Your task to perform on an android device: Turn off the flashlight Image 0: 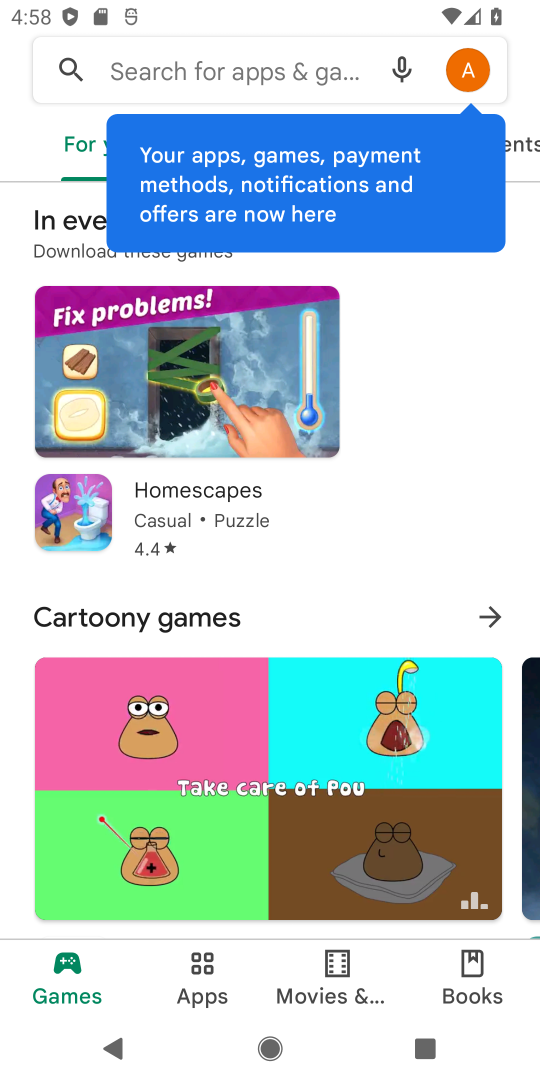
Step 0: press home button
Your task to perform on an android device: Turn off the flashlight Image 1: 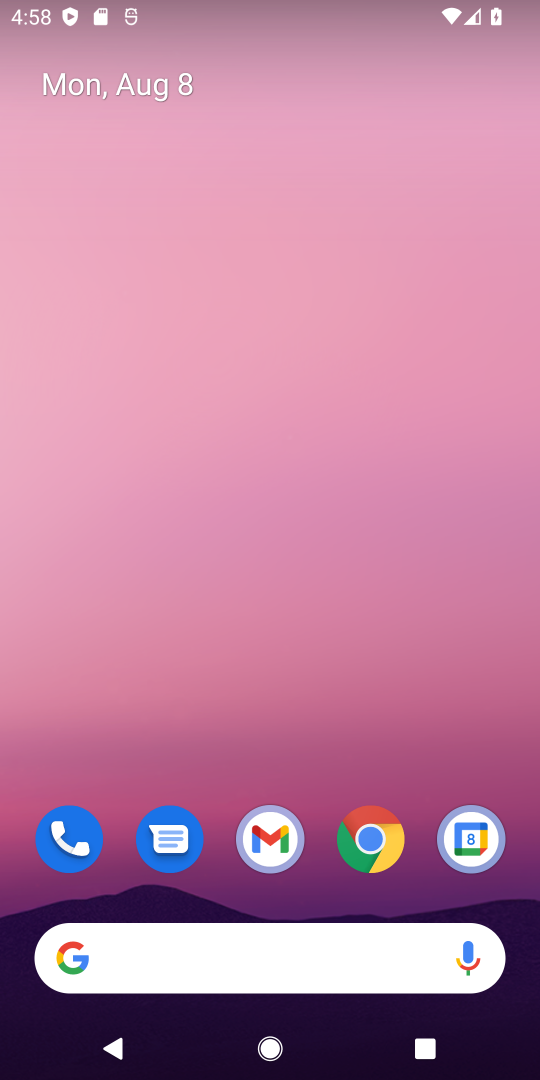
Step 1: drag from (301, 905) to (320, 17)
Your task to perform on an android device: Turn off the flashlight Image 2: 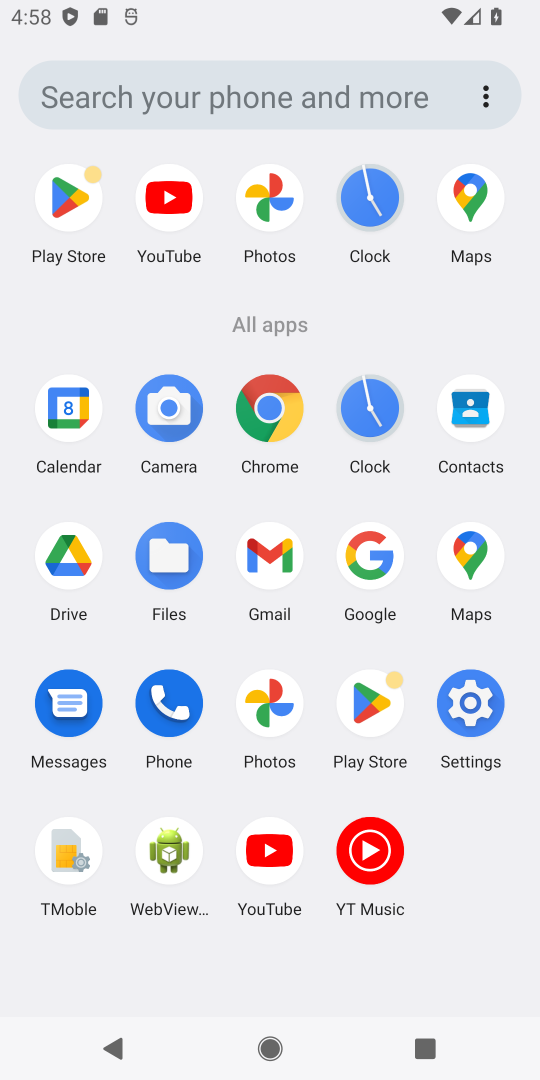
Step 2: click (471, 707)
Your task to perform on an android device: Turn off the flashlight Image 3: 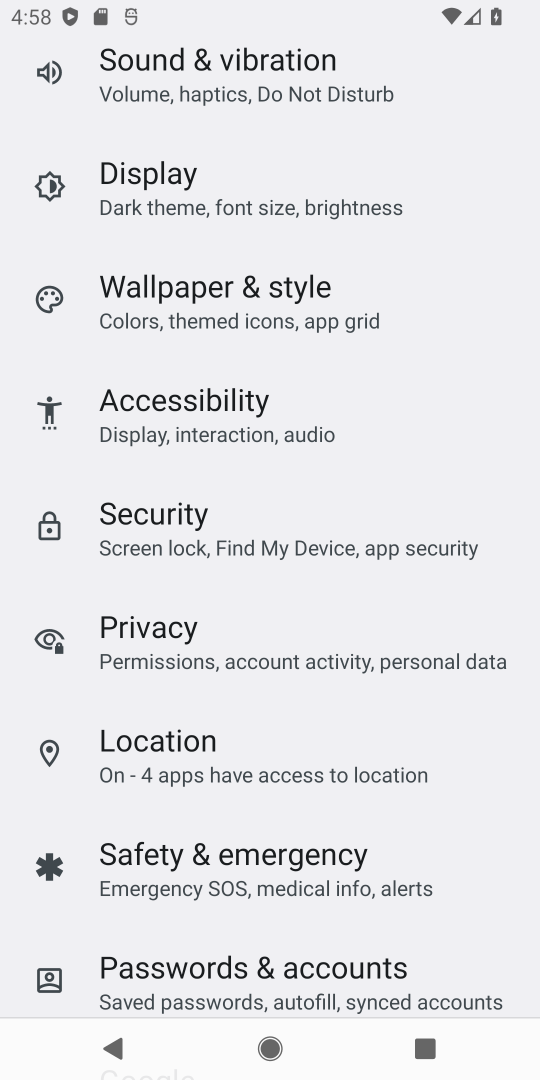
Step 3: drag from (304, 769) to (319, 1016)
Your task to perform on an android device: Turn off the flashlight Image 4: 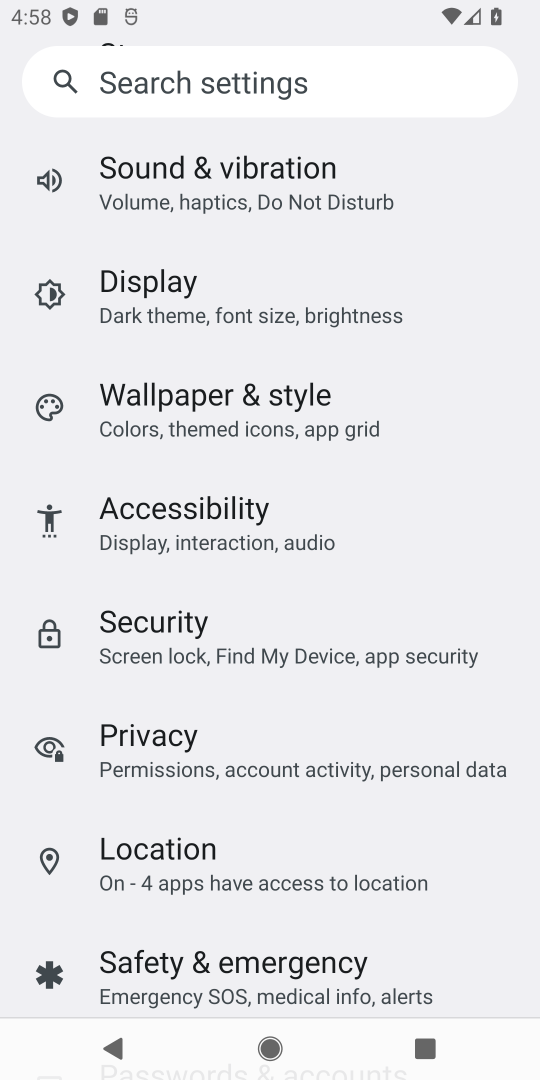
Step 4: click (253, 70)
Your task to perform on an android device: Turn off the flashlight Image 5: 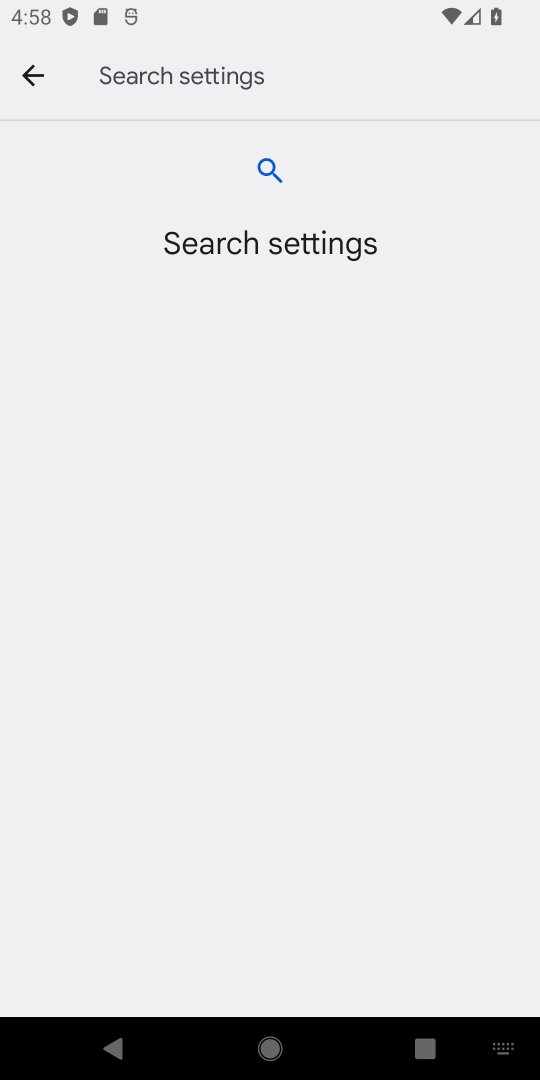
Step 5: type "flashlight"
Your task to perform on an android device: Turn off the flashlight Image 6: 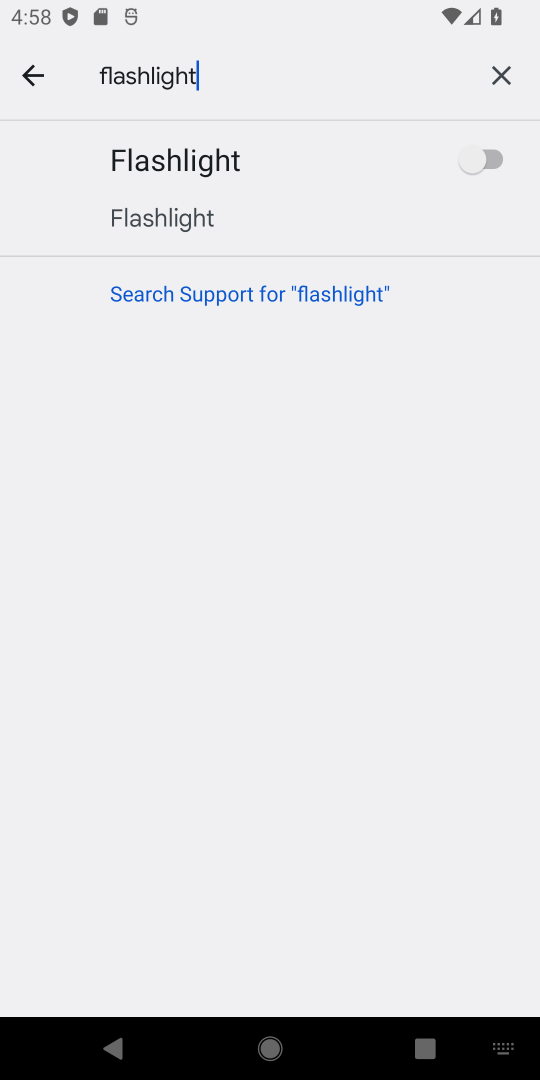
Step 6: task complete